Your task to perform on an android device: turn off airplane mode Image 0: 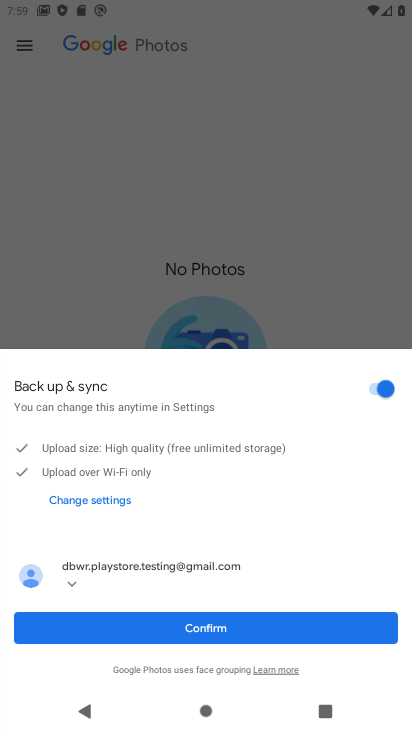
Step 0: press home button
Your task to perform on an android device: turn off airplane mode Image 1: 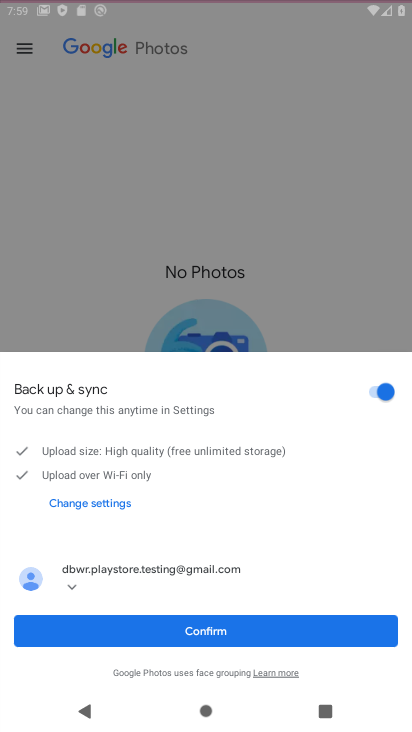
Step 1: task complete